Your task to perform on an android device: Go to Android settings Image 0: 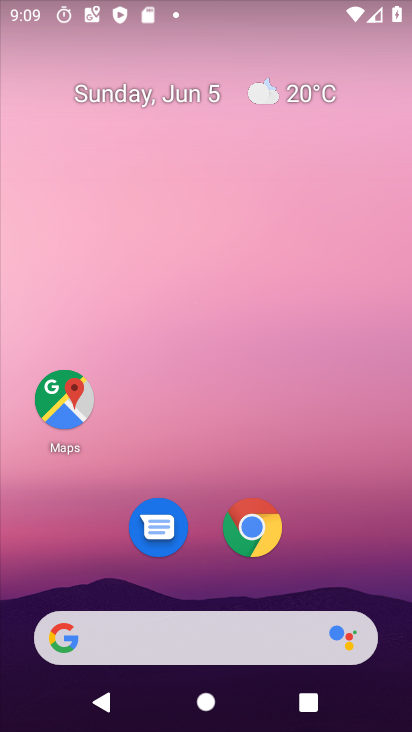
Step 0: drag from (334, 535) to (318, 6)
Your task to perform on an android device: Go to Android settings Image 1: 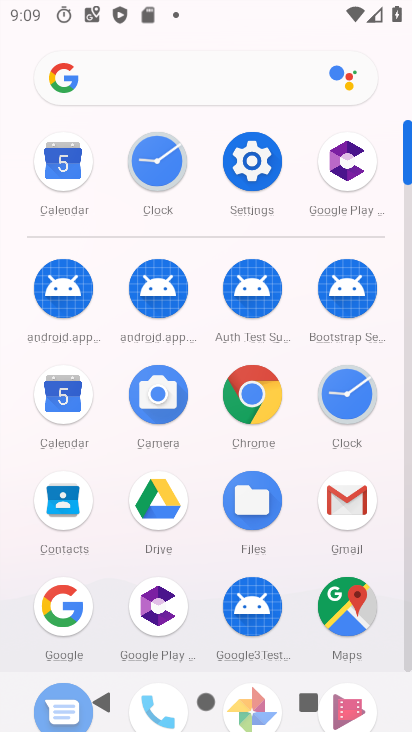
Step 1: click (246, 143)
Your task to perform on an android device: Go to Android settings Image 2: 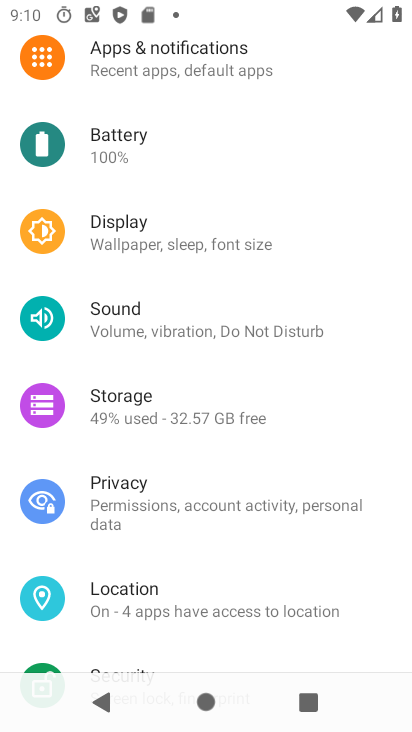
Step 2: task complete